Your task to perform on an android device: What's the weather today? Image 0: 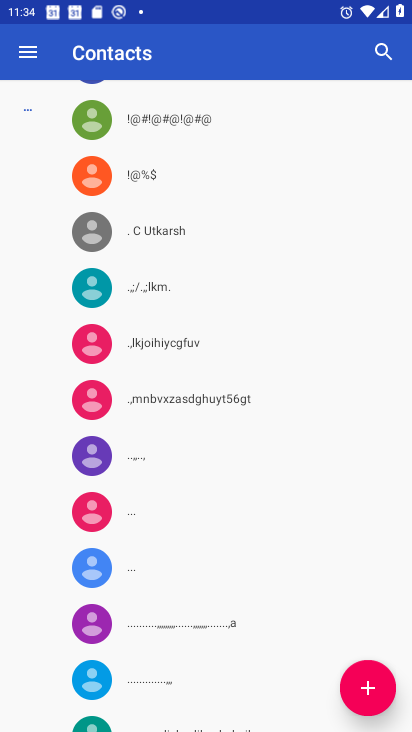
Step 0: press back button
Your task to perform on an android device: What's the weather today? Image 1: 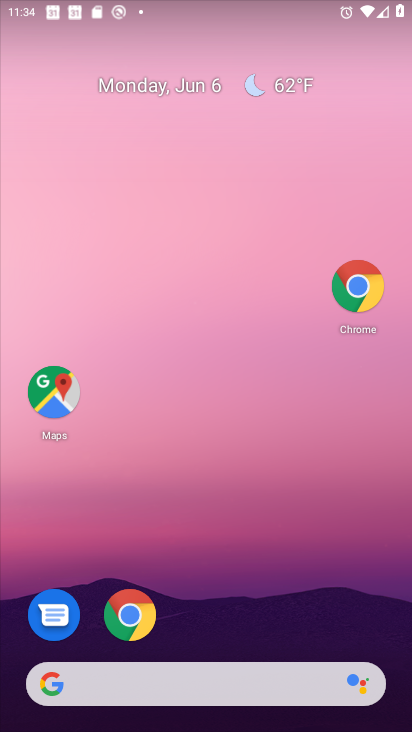
Step 1: drag from (57, 329) to (394, 498)
Your task to perform on an android device: What's the weather today? Image 2: 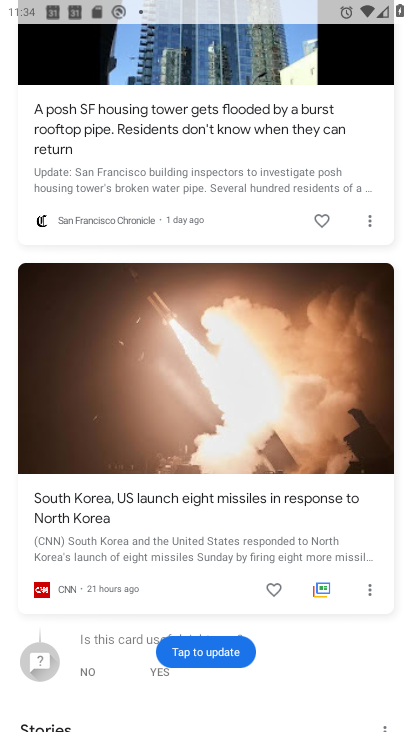
Step 2: drag from (151, 121) to (141, 437)
Your task to perform on an android device: What's the weather today? Image 3: 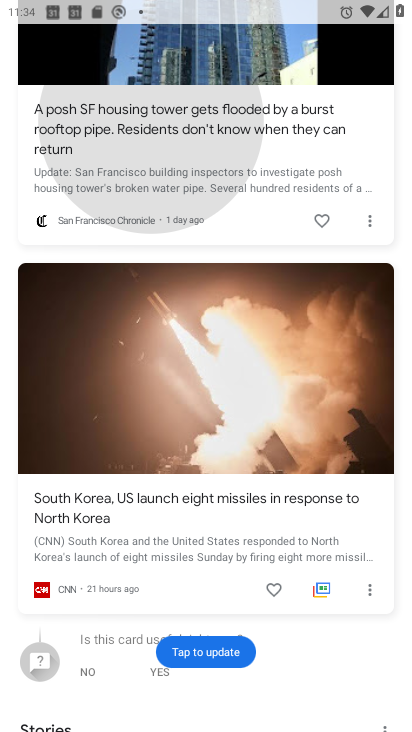
Step 3: drag from (137, 152) to (281, 632)
Your task to perform on an android device: What's the weather today? Image 4: 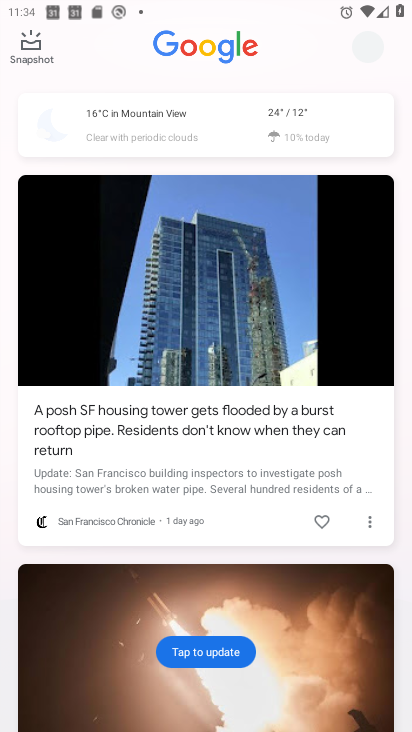
Step 4: drag from (221, 295) to (260, 519)
Your task to perform on an android device: What's the weather today? Image 5: 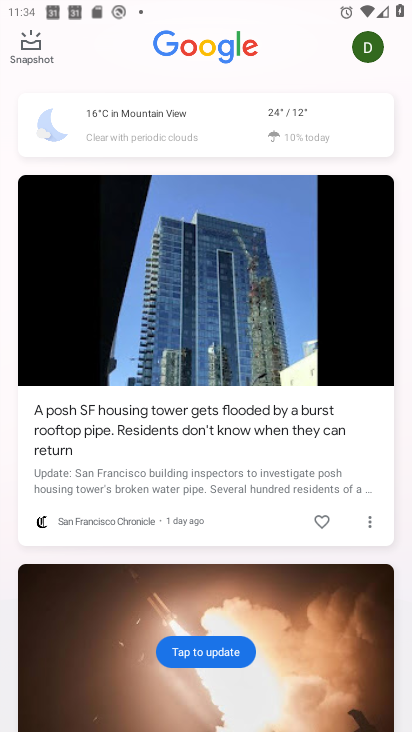
Step 5: click (151, 122)
Your task to perform on an android device: What's the weather today? Image 6: 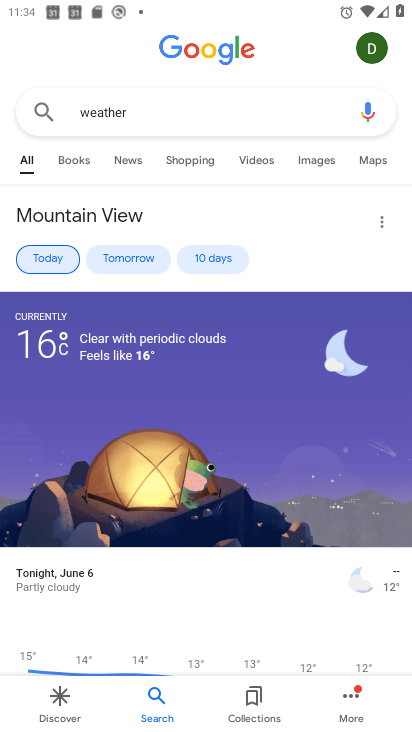
Step 6: task complete